Your task to perform on an android device: manage bookmarks in the chrome app Image 0: 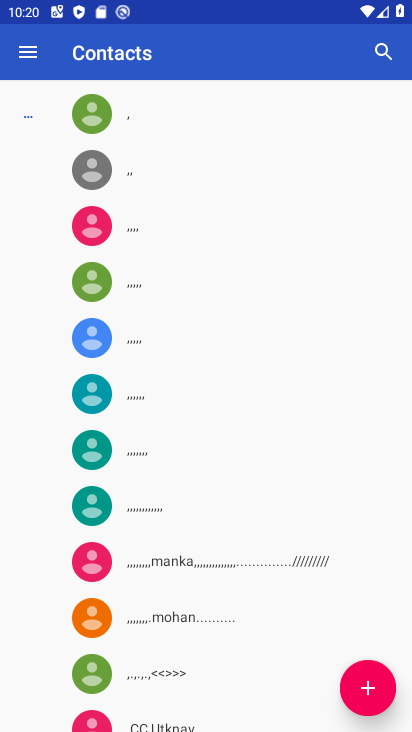
Step 0: press home button
Your task to perform on an android device: manage bookmarks in the chrome app Image 1: 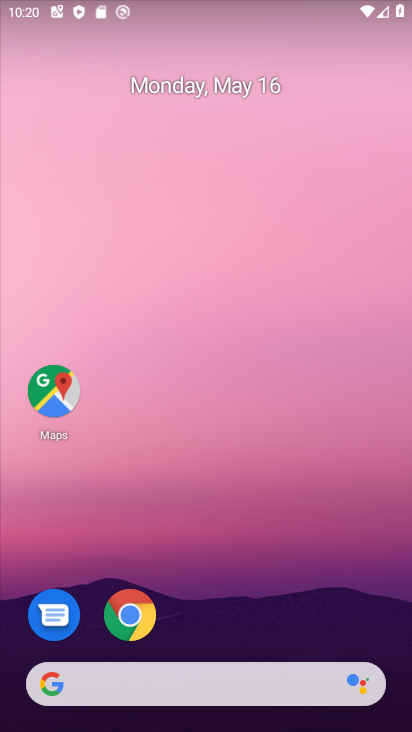
Step 1: drag from (285, 723) to (200, 202)
Your task to perform on an android device: manage bookmarks in the chrome app Image 2: 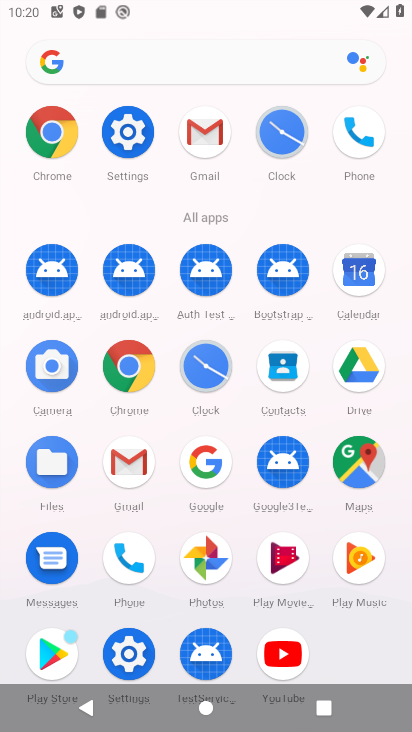
Step 2: click (53, 135)
Your task to perform on an android device: manage bookmarks in the chrome app Image 3: 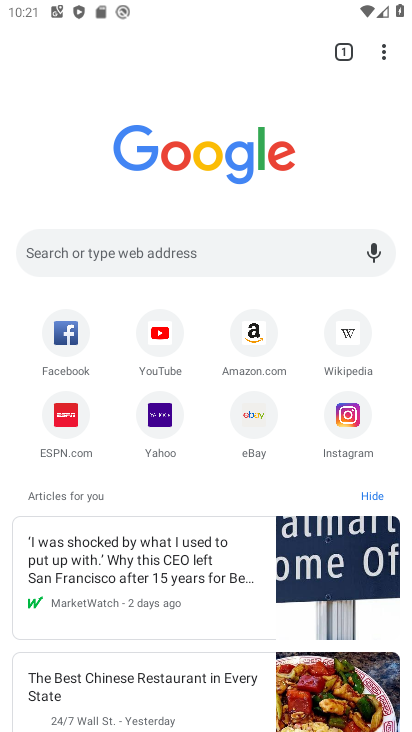
Step 3: click (376, 72)
Your task to perform on an android device: manage bookmarks in the chrome app Image 4: 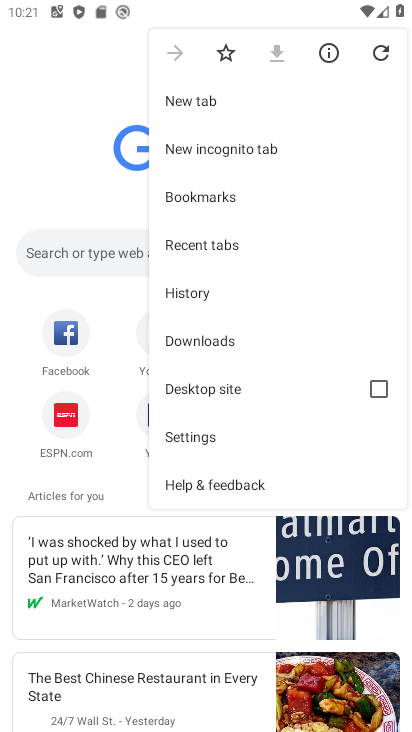
Step 4: click (195, 442)
Your task to perform on an android device: manage bookmarks in the chrome app Image 5: 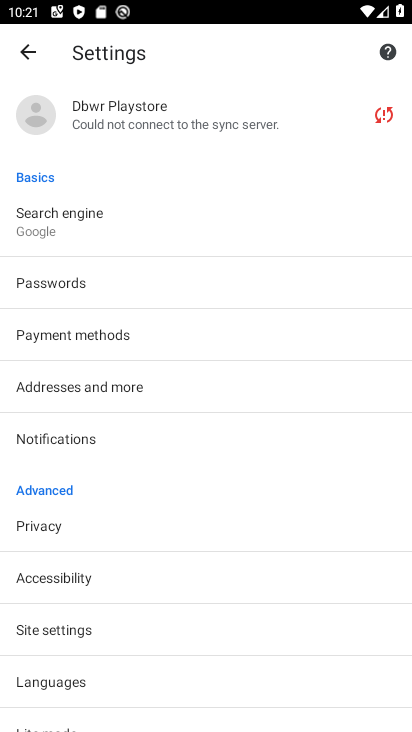
Step 5: click (21, 58)
Your task to perform on an android device: manage bookmarks in the chrome app Image 6: 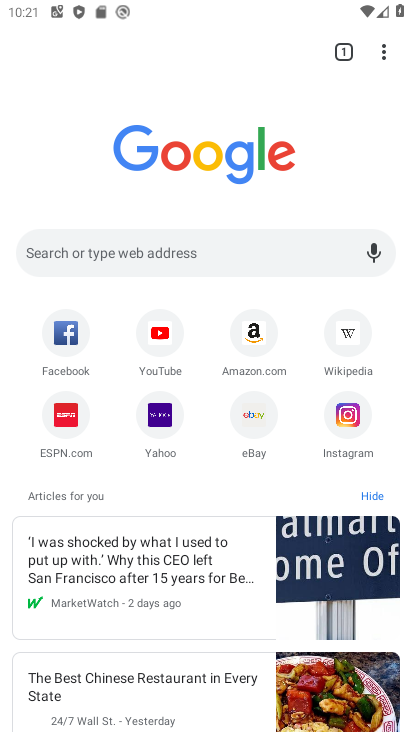
Step 6: click (388, 47)
Your task to perform on an android device: manage bookmarks in the chrome app Image 7: 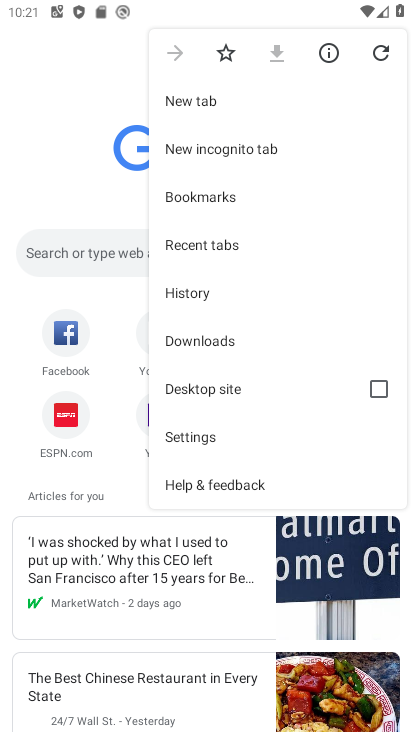
Step 7: click (214, 212)
Your task to perform on an android device: manage bookmarks in the chrome app Image 8: 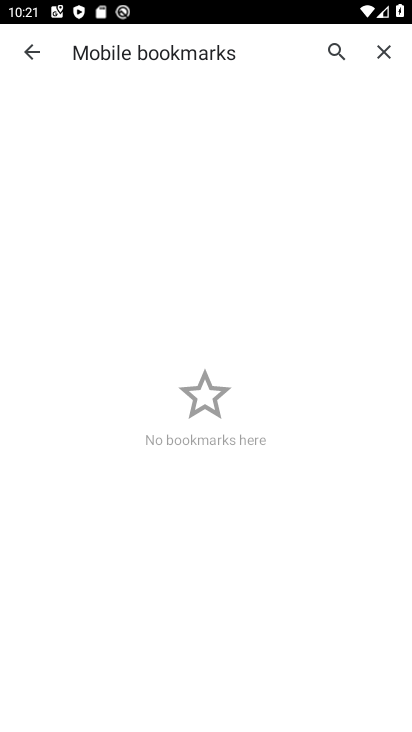
Step 8: task complete